Your task to perform on an android device: empty trash in google photos Image 0: 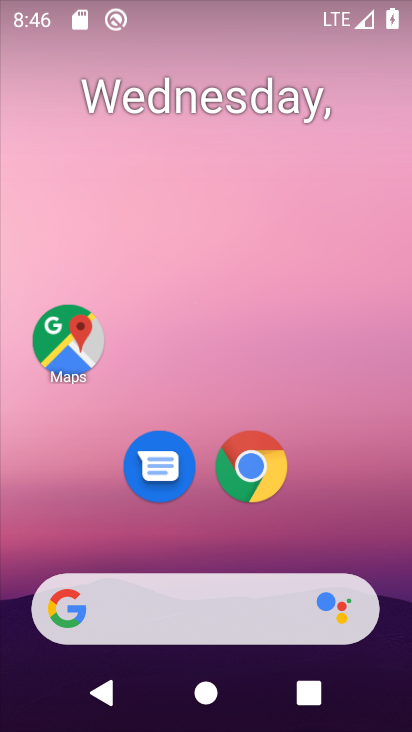
Step 0: drag from (239, 726) to (225, 121)
Your task to perform on an android device: empty trash in google photos Image 1: 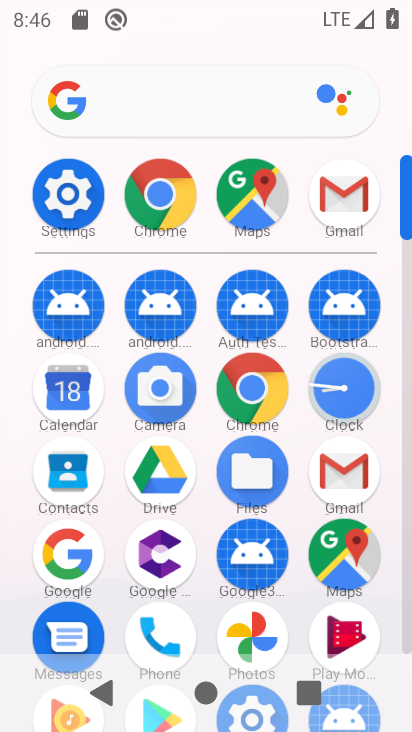
Step 1: click (256, 629)
Your task to perform on an android device: empty trash in google photos Image 2: 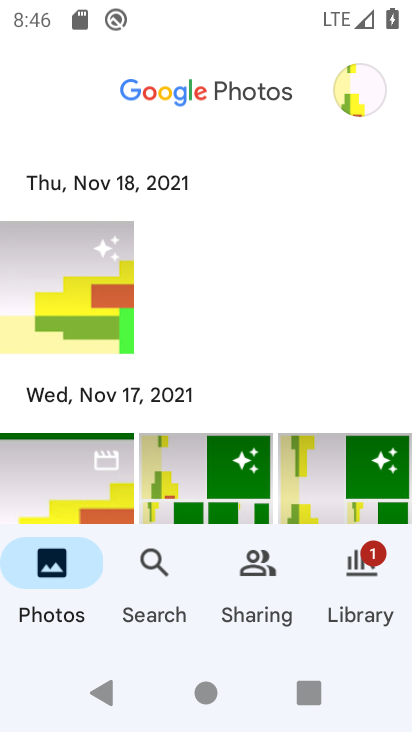
Step 2: click (365, 581)
Your task to perform on an android device: empty trash in google photos Image 3: 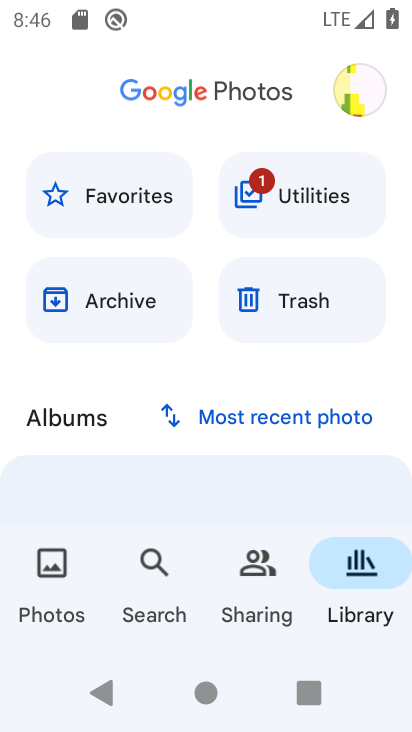
Step 3: click (285, 293)
Your task to perform on an android device: empty trash in google photos Image 4: 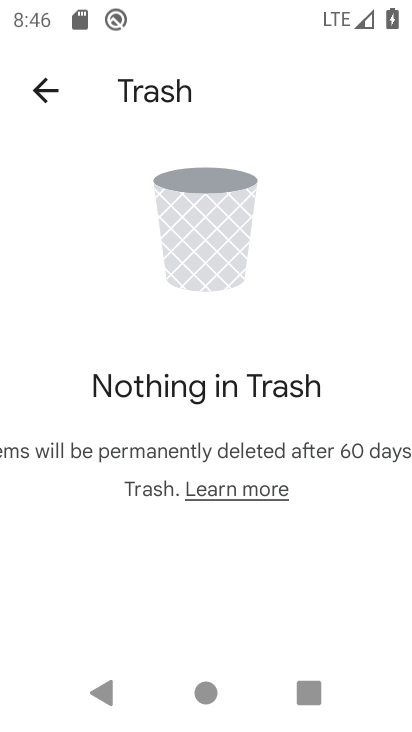
Step 4: task complete